Your task to perform on an android device: Go to sound settings Image 0: 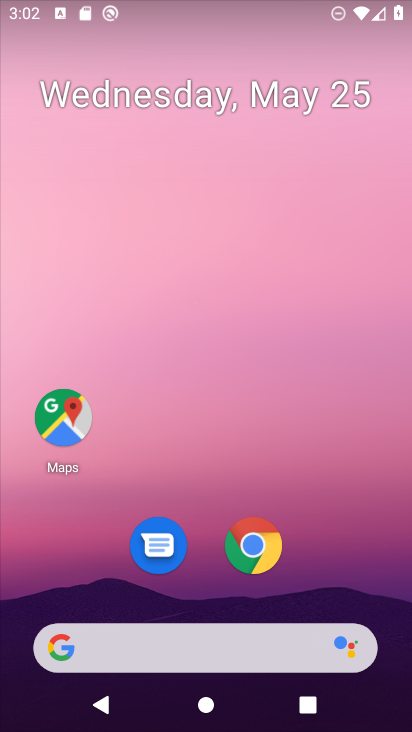
Step 0: drag from (370, 547) to (259, 0)
Your task to perform on an android device: Go to sound settings Image 1: 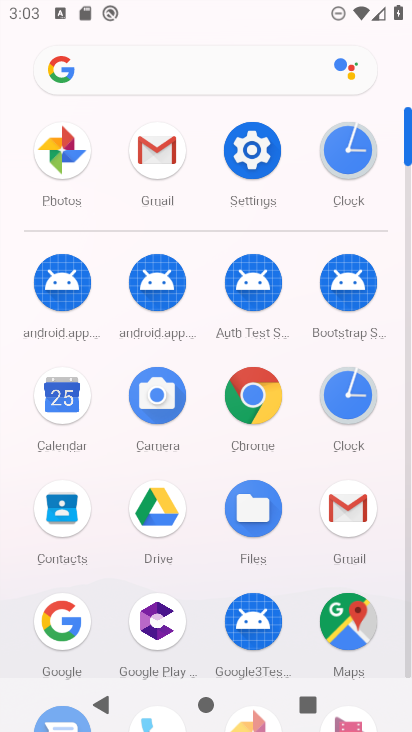
Step 1: click (253, 160)
Your task to perform on an android device: Go to sound settings Image 2: 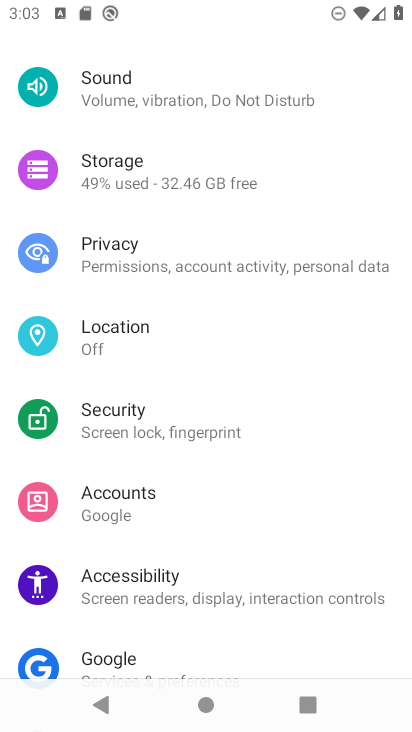
Step 2: click (173, 93)
Your task to perform on an android device: Go to sound settings Image 3: 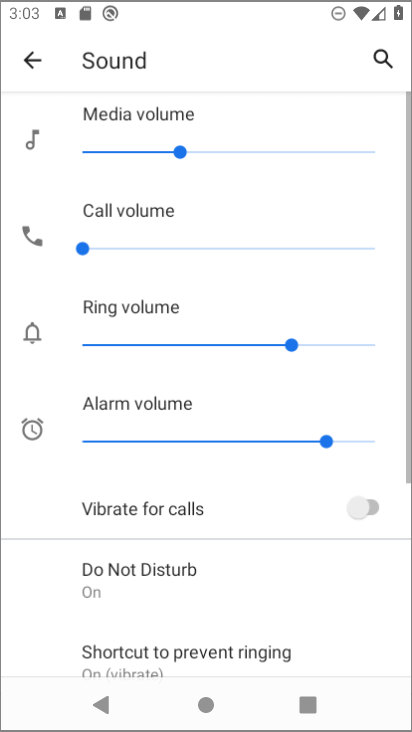
Step 3: task complete